Your task to perform on an android device: check data usage Image 0: 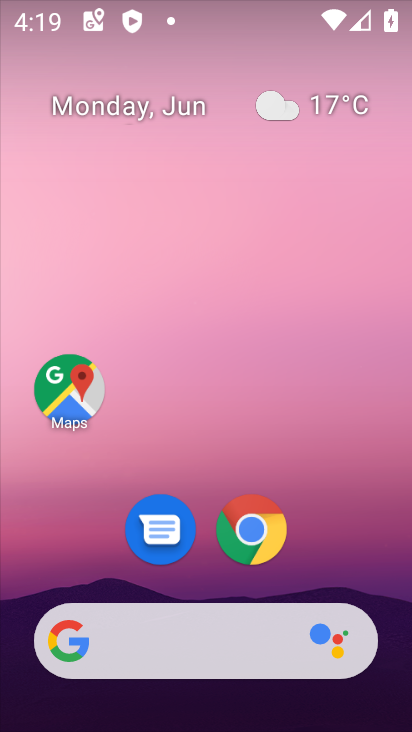
Step 0: drag from (337, 541) to (215, 14)
Your task to perform on an android device: check data usage Image 1: 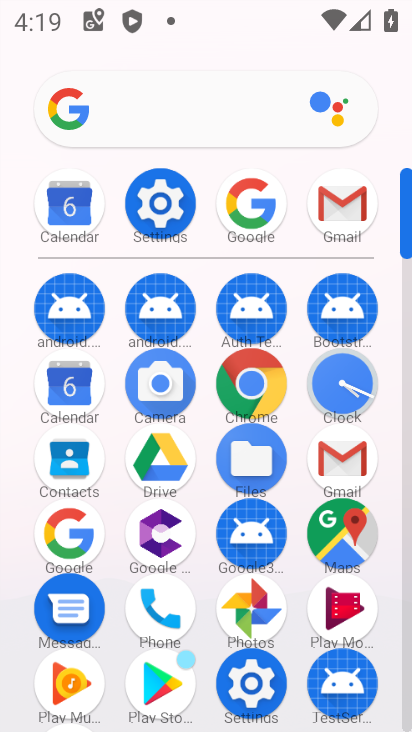
Step 1: click (163, 205)
Your task to perform on an android device: check data usage Image 2: 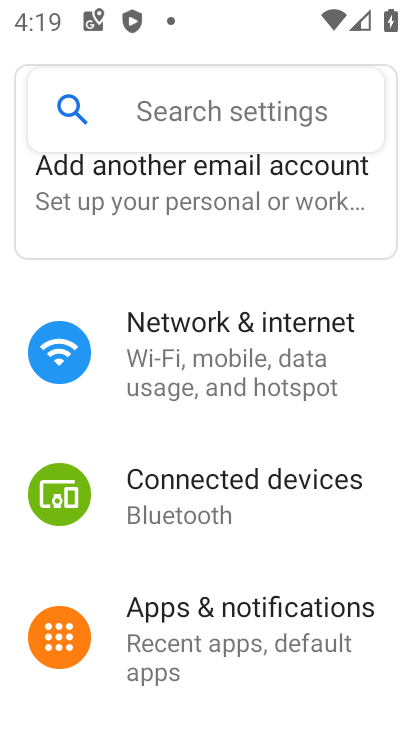
Step 2: click (209, 374)
Your task to perform on an android device: check data usage Image 3: 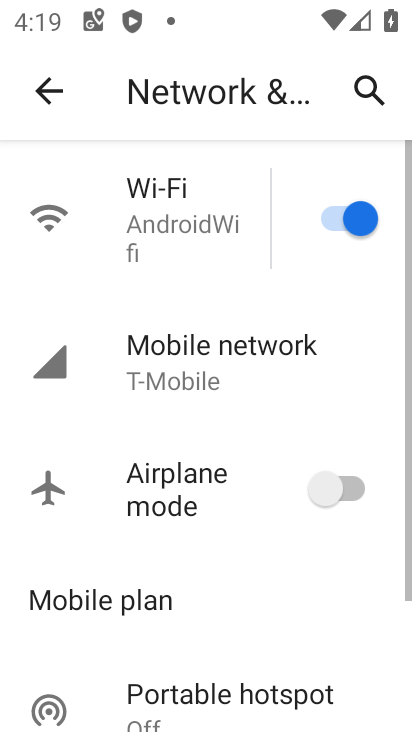
Step 3: click (197, 351)
Your task to perform on an android device: check data usage Image 4: 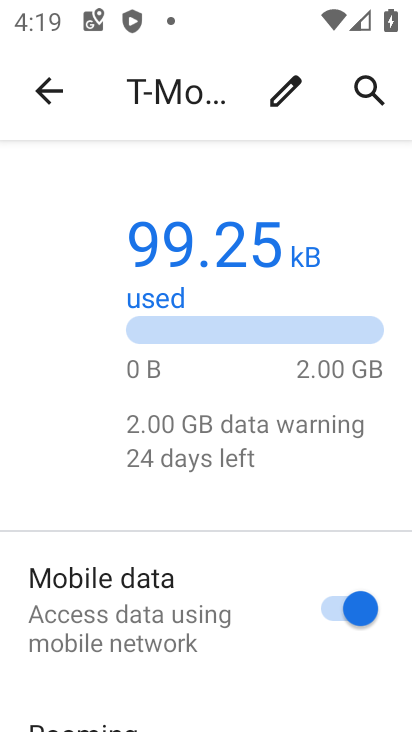
Step 4: task complete